Your task to perform on an android device: Open Yahoo.com Image 0: 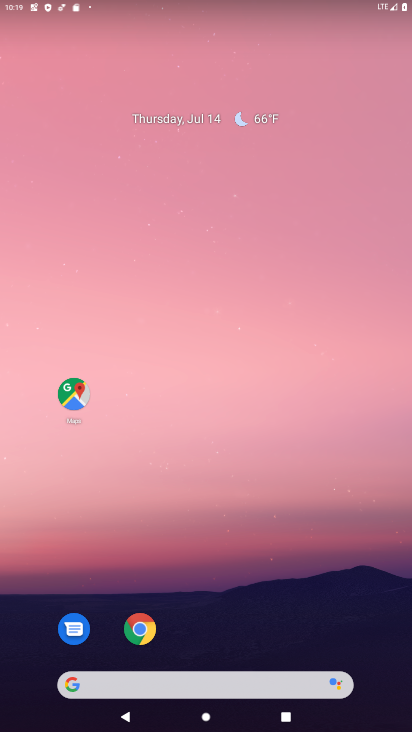
Step 0: click (75, 687)
Your task to perform on an android device: Open Yahoo.com Image 1: 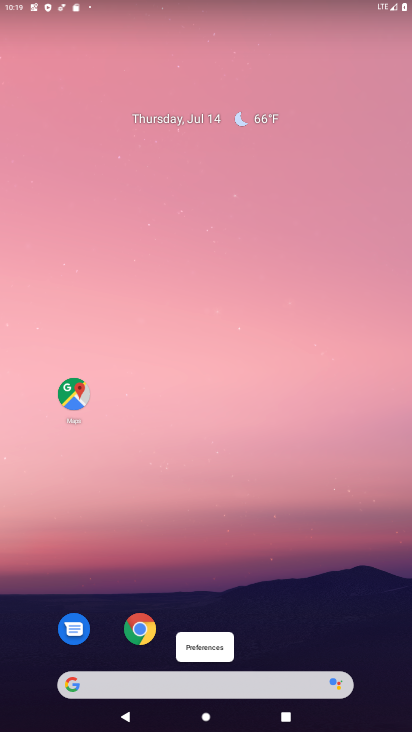
Step 1: click (75, 687)
Your task to perform on an android device: Open Yahoo.com Image 2: 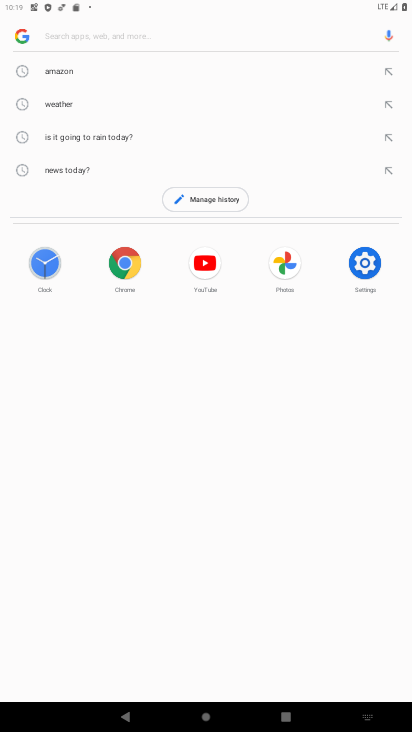
Step 2: type "Yahoo.com"
Your task to perform on an android device: Open Yahoo.com Image 3: 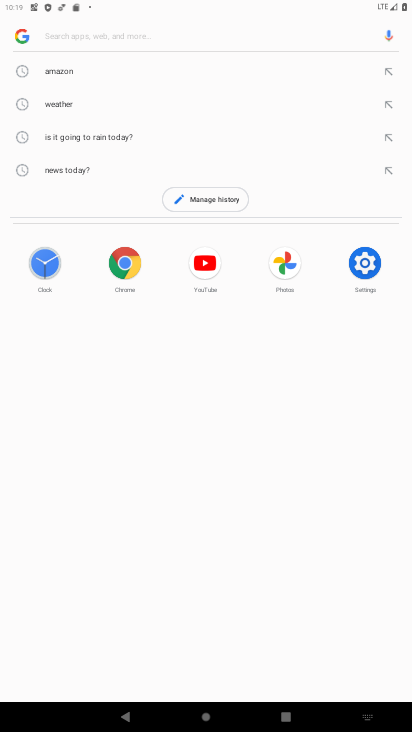
Step 3: click (79, 36)
Your task to perform on an android device: Open Yahoo.com Image 4: 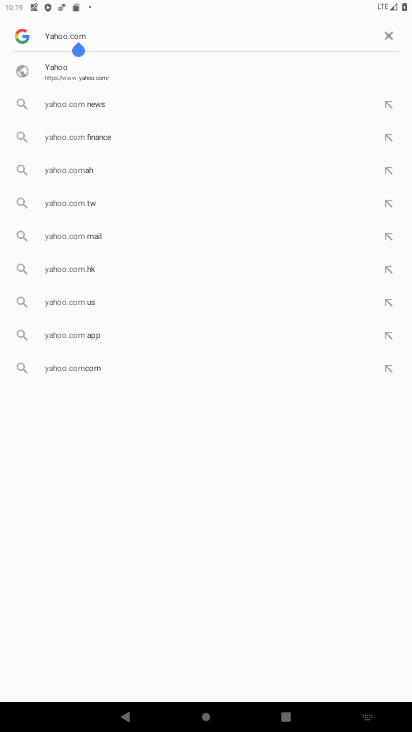
Step 4: press enter
Your task to perform on an android device: Open Yahoo.com Image 5: 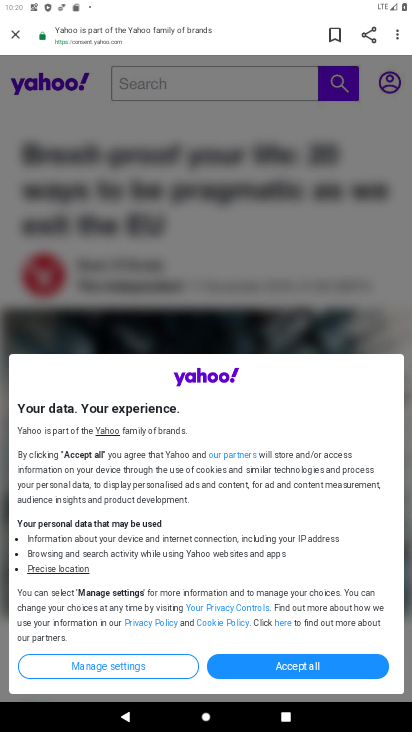
Step 5: click (321, 667)
Your task to perform on an android device: Open Yahoo.com Image 6: 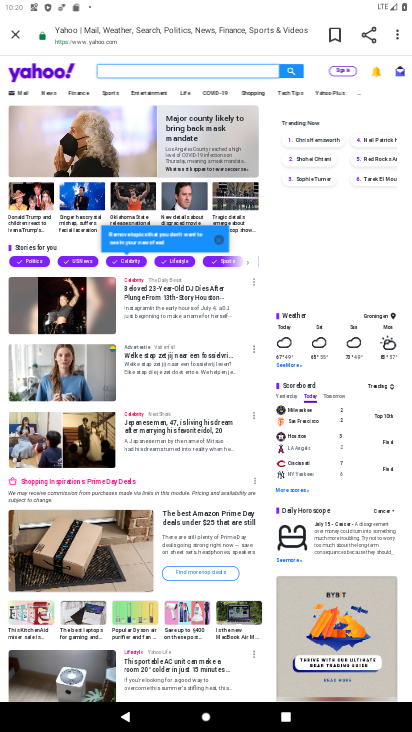
Step 6: task complete